Your task to perform on an android device: delete the emails in spam in the gmail app Image 0: 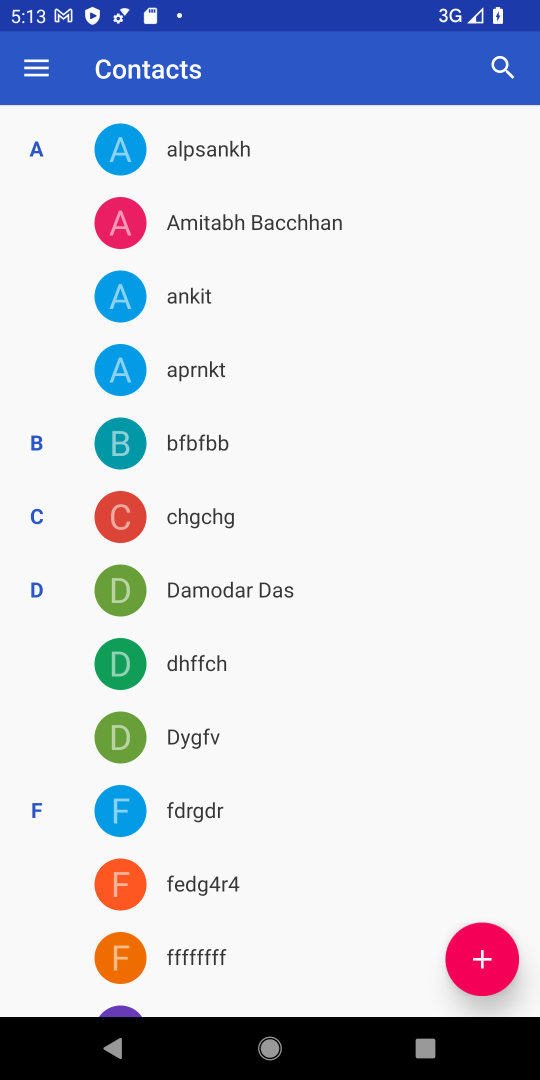
Step 0: press home button
Your task to perform on an android device: delete the emails in spam in the gmail app Image 1: 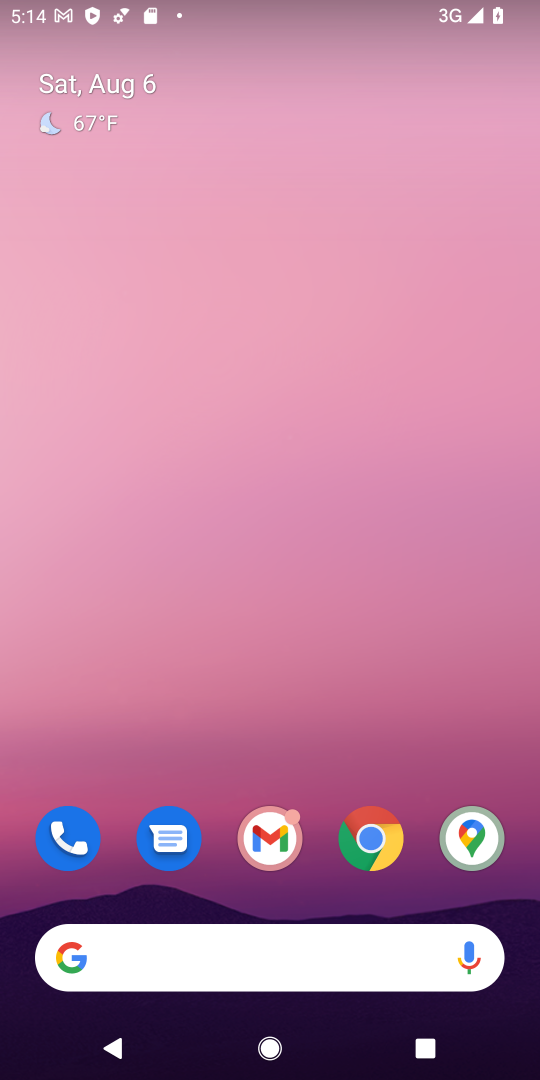
Step 1: drag from (286, 903) to (263, 131)
Your task to perform on an android device: delete the emails in spam in the gmail app Image 2: 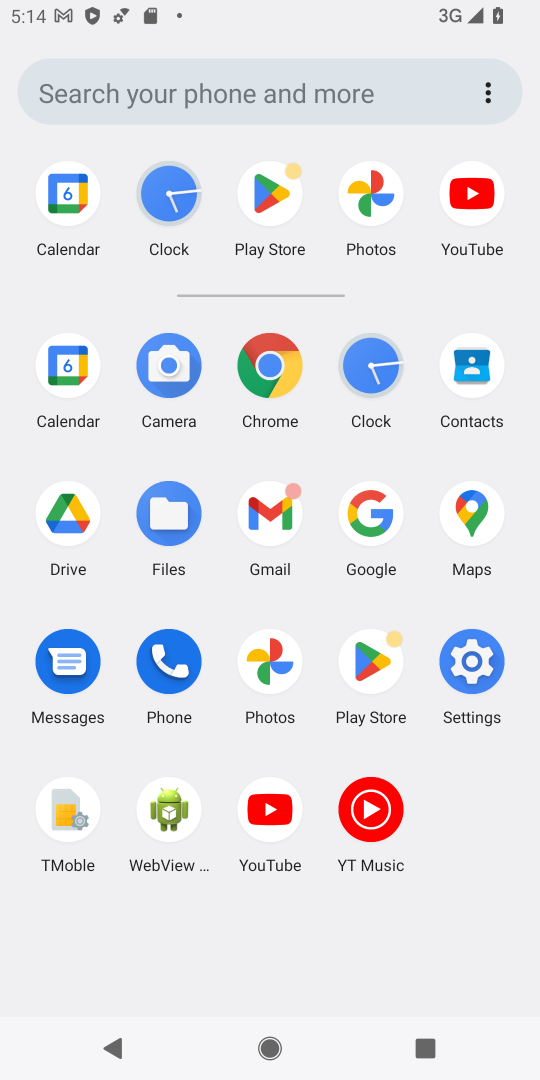
Step 2: click (279, 514)
Your task to perform on an android device: delete the emails in spam in the gmail app Image 3: 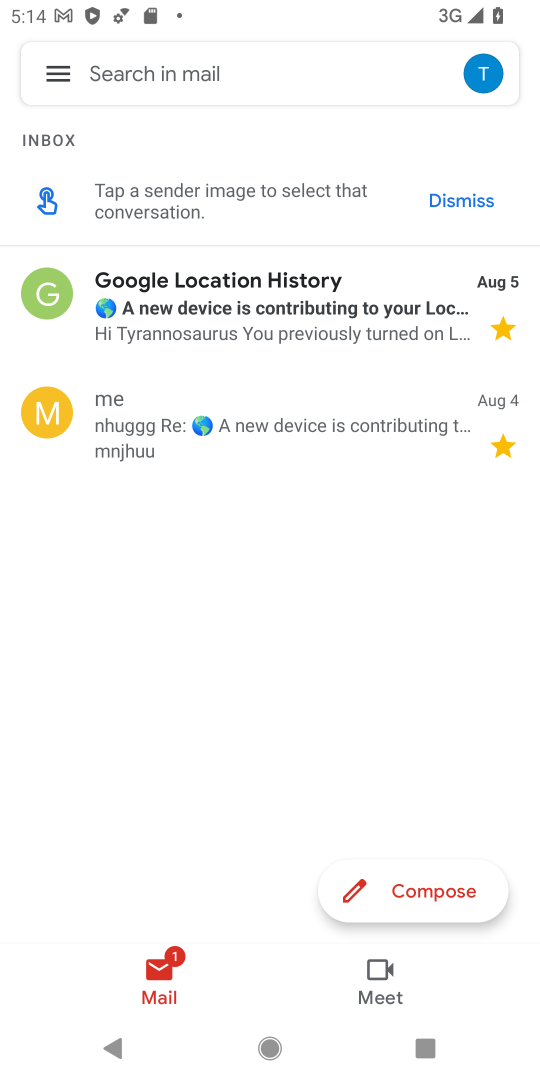
Step 3: click (69, 78)
Your task to perform on an android device: delete the emails in spam in the gmail app Image 4: 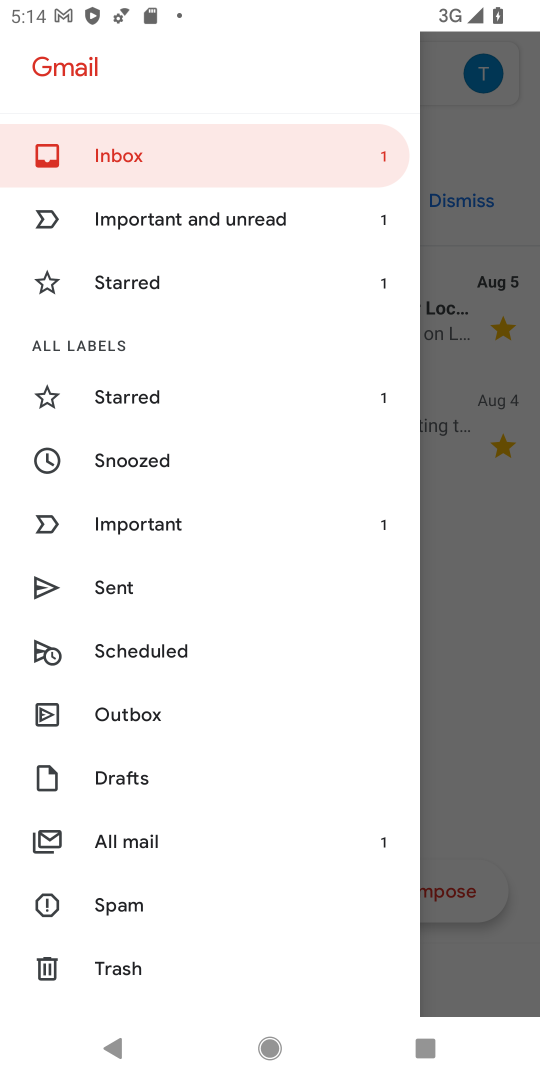
Step 4: click (185, 909)
Your task to perform on an android device: delete the emails in spam in the gmail app Image 5: 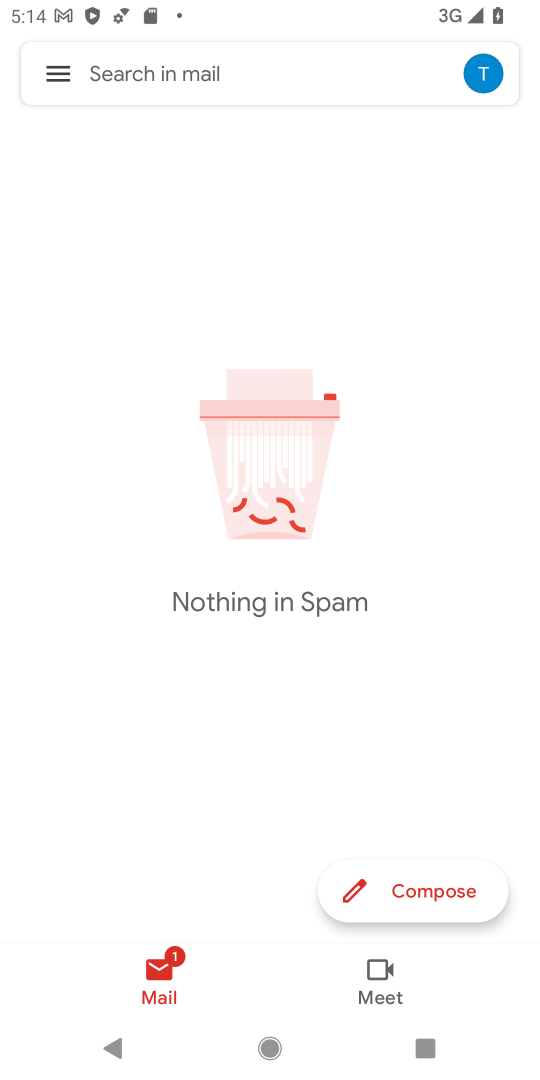
Step 5: task complete